Your task to perform on an android device: Go to Amazon Image 0: 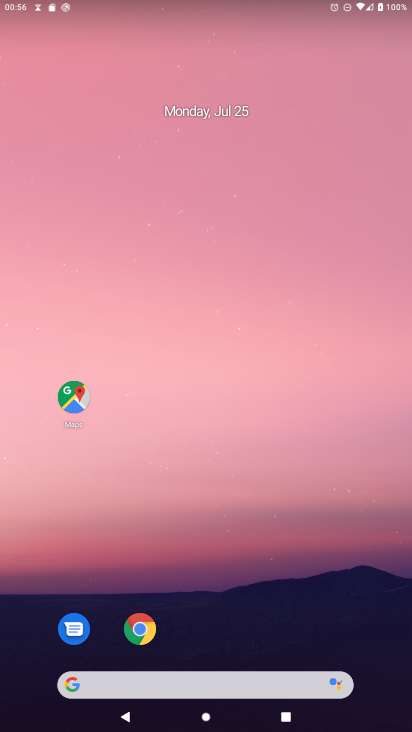
Step 0: drag from (188, 617) to (263, 130)
Your task to perform on an android device: Go to Amazon Image 1: 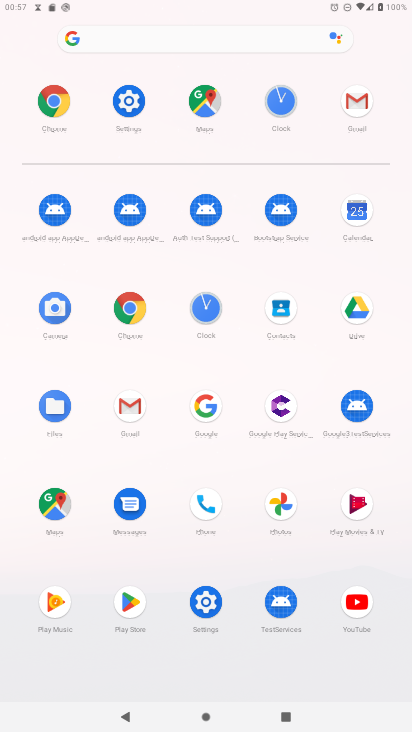
Step 1: click (126, 314)
Your task to perform on an android device: Go to Amazon Image 2: 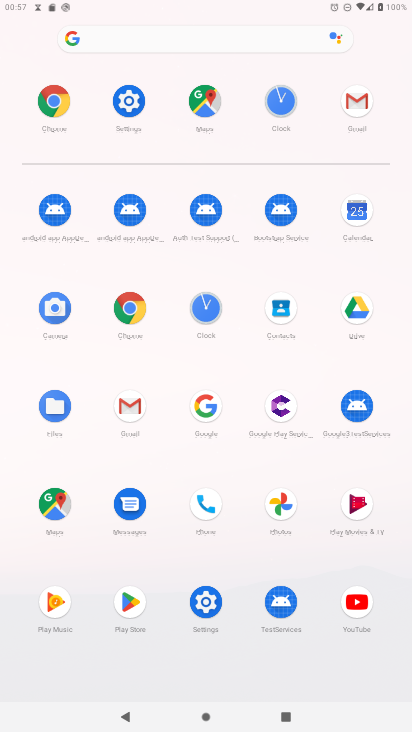
Step 2: click (126, 314)
Your task to perform on an android device: Go to Amazon Image 3: 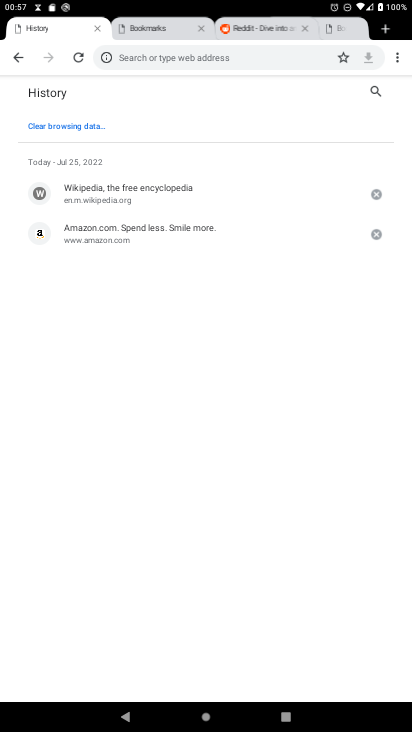
Step 3: drag from (173, 561) to (202, 227)
Your task to perform on an android device: Go to Amazon Image 4: 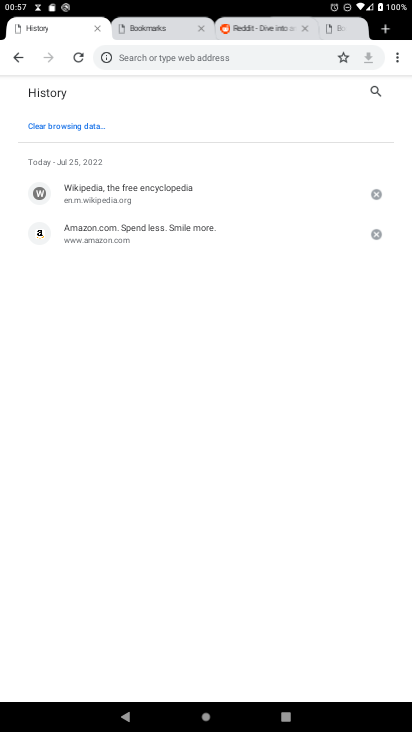
Step 4: drag from (165, 521) to (187, 369)
Your task to perform on an android device: Go to Amazon Image 5: 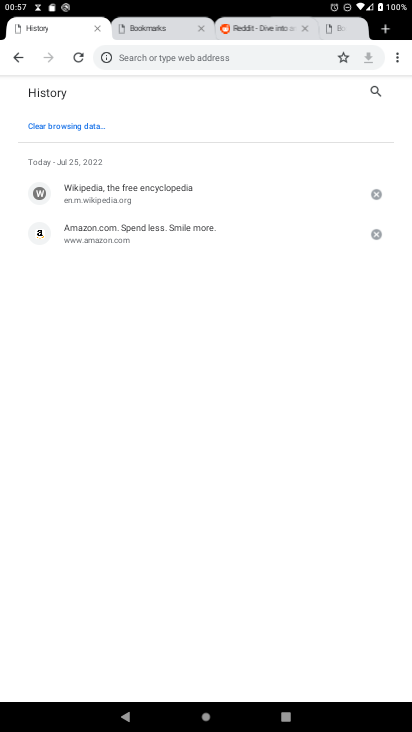
Step 5: click (384, 29)
Your task to perform on an android device: Go to Amazon Image 6: 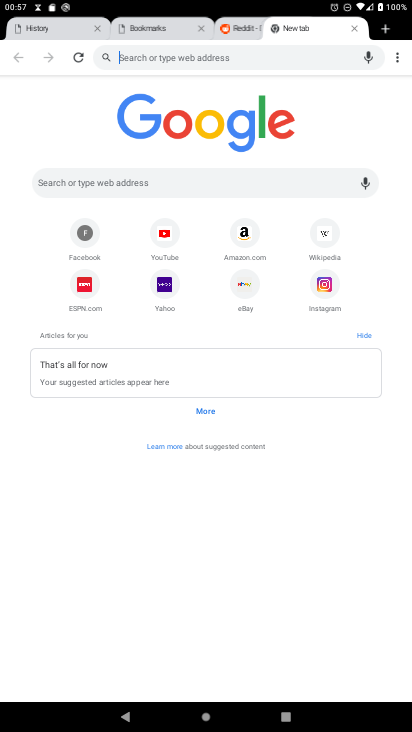
Step 6: click (256, 231)
Your task to perform on an android device: Go to Amazon Image 7: 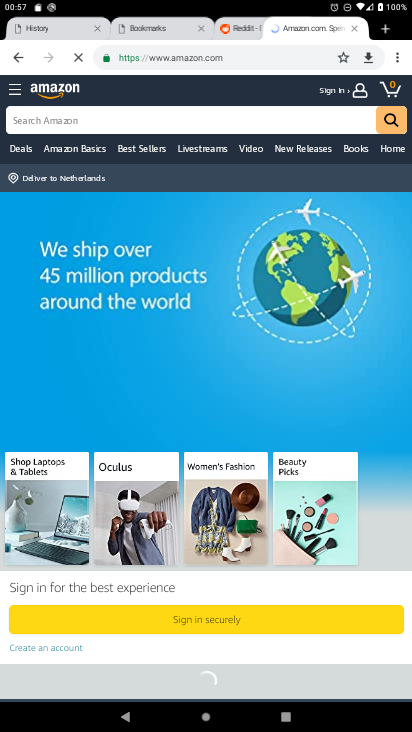
Step 7: task complete